Your task to perform on an android device: change the clock display to digital Image 0: 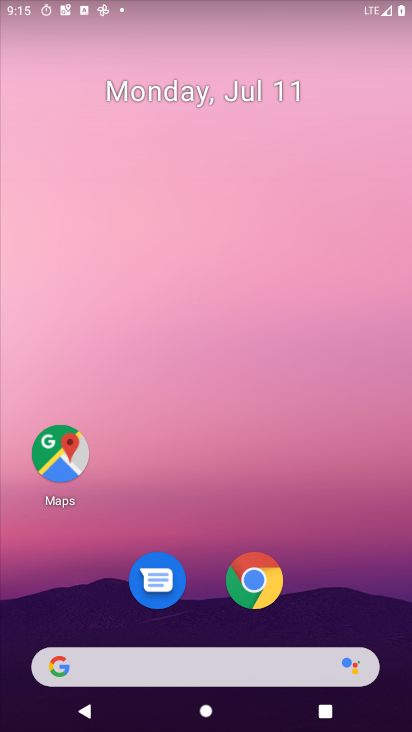
Step 0: drag from (310, 532) to (323, 46)
Your task to perform on an android device: change the clock display to digital Image 1: 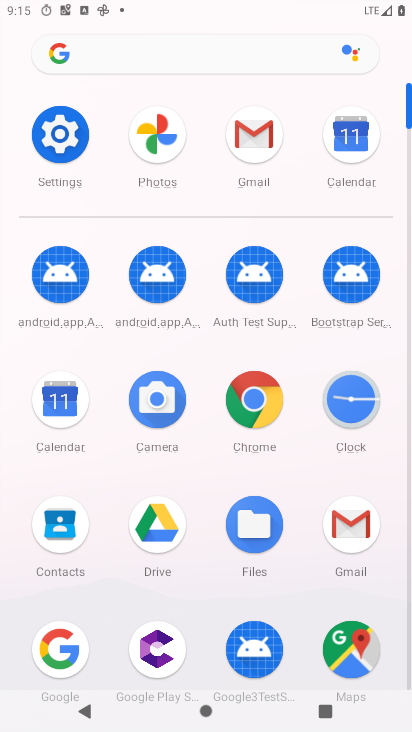
Step 1: click (347, 380)
Your task to perform on an android device: change the clock display to digital Image 2: 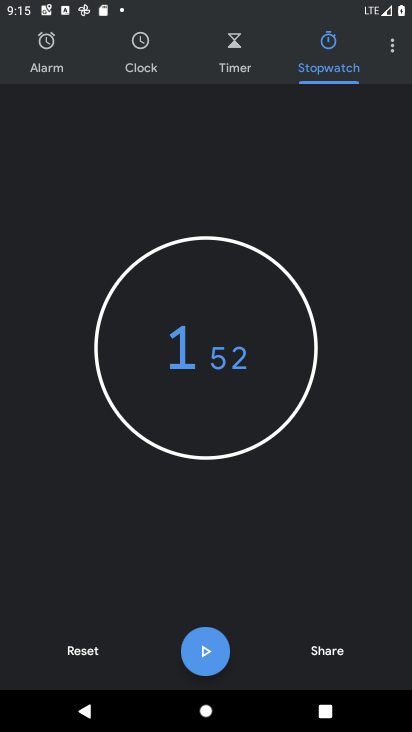
Step 2: click (142, 54)
Your task to perform on an android device: change the clock display to digital Image 3: 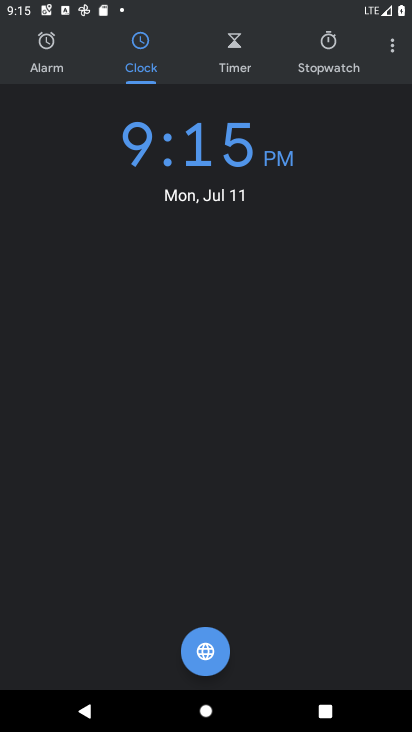
Step 3: task complete